Your task to perform on an android device: empty trash in google photos Image 0: 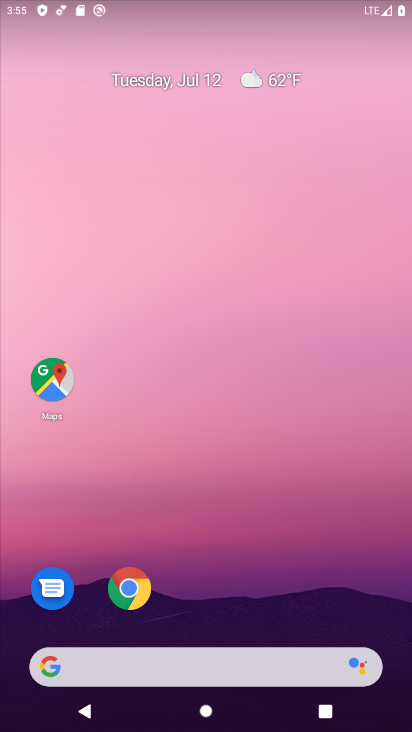
Step 0: drag from (379, 608) to (411, 586)
Your task to perform on an android device: empty trash in google photos Image 1: 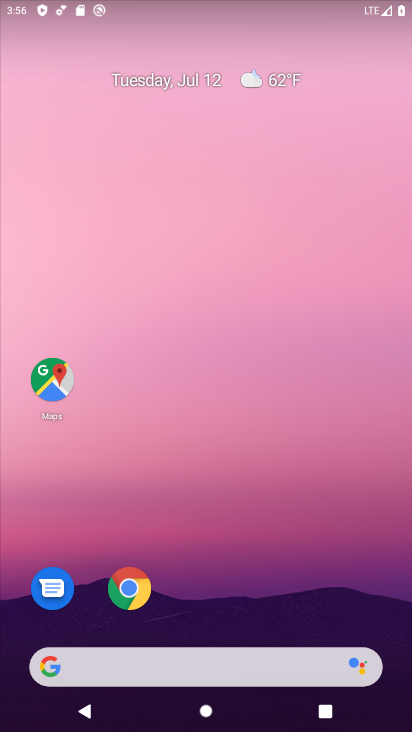
Step 1: drag from (358, 533) to (410, 130)
Your task to perform on an android device: empty trash in google photos Image 2: 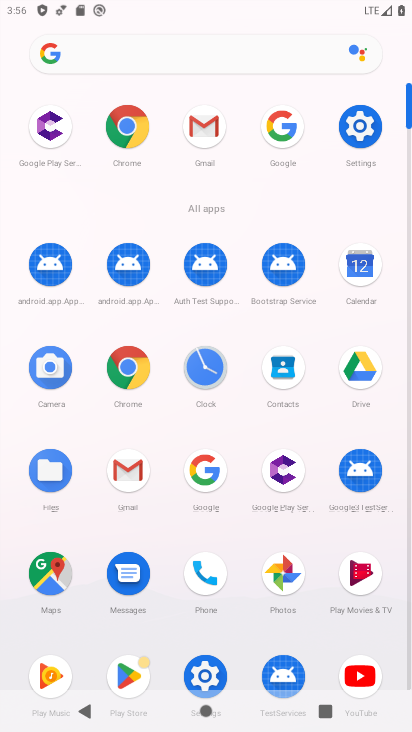
Step 2: click (295, 585)
Your task to perform on an android device: empty trash in google photos Image 3: 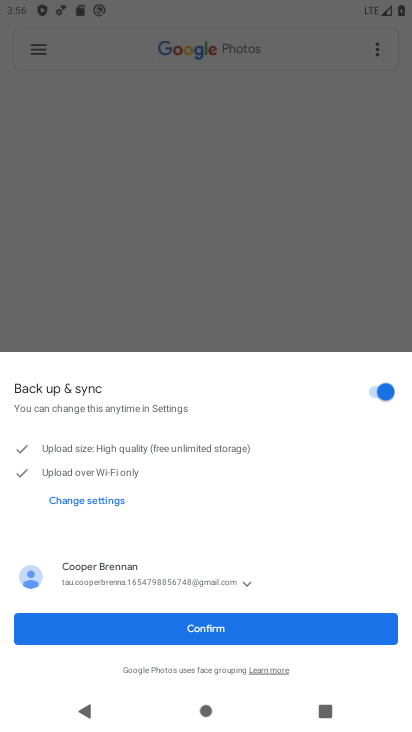
Step 3: click (214, 629)
Your task to perform on an android device: empty trash in google photos Image 4: 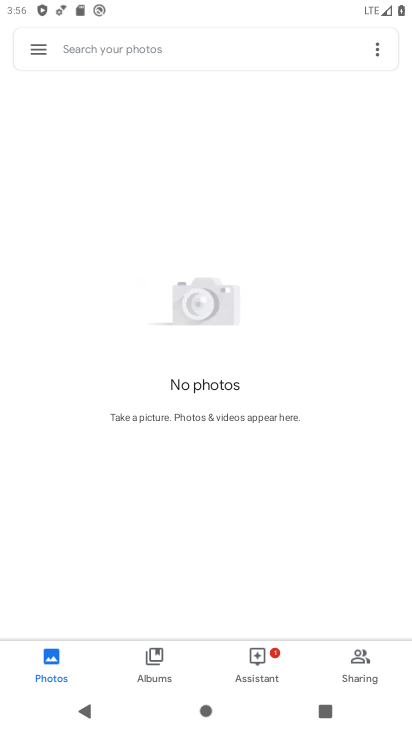
Step 4: click (43, 38)
Your task to perform on an android device: empty trash in google photos Image 5: 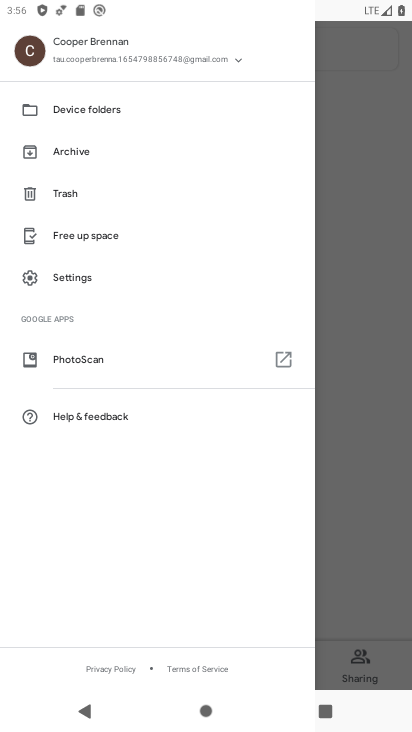
Step 5: click (56, 200)
Your task to perform on an android device: empty trash in google photos Image 6: 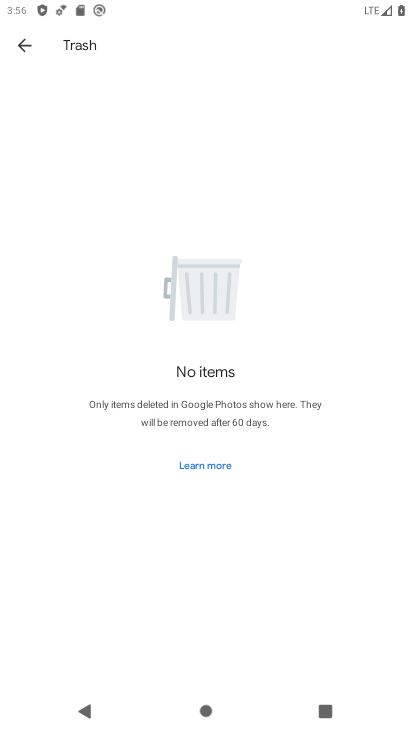
Step 6: task complete